Your task to perform on an android device: Go to accessibility settings Image 0: 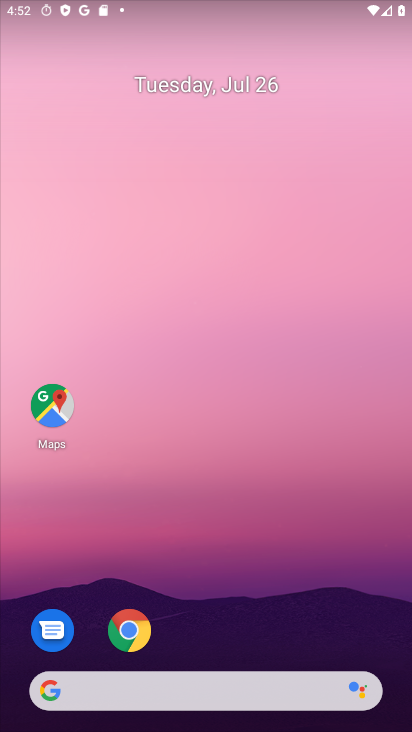
Step 0: drag from (295, 625) to (303, 40)
Your task to perform on an android device: Go to accessibility settings Image 1: 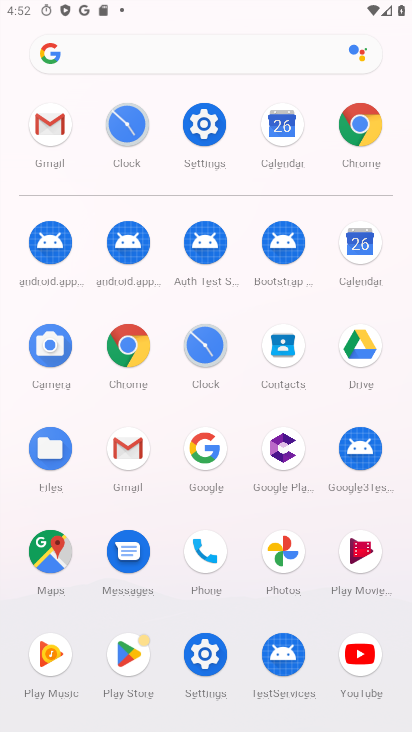
Step 1: click (210, 119)
Your task to perform on an android device: Go to accessibility settings Image 2: 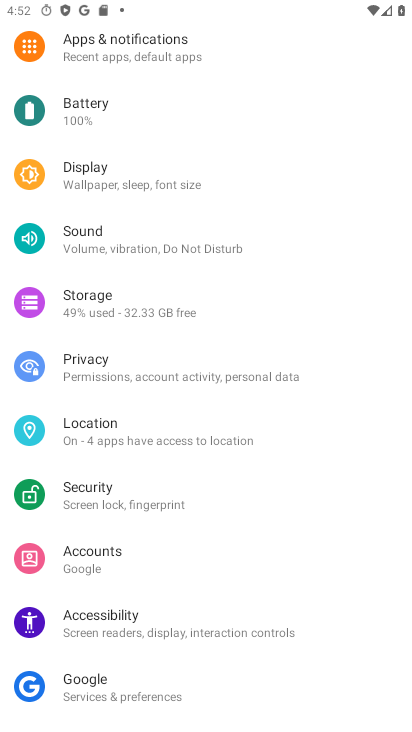
Step 2: click (142, 627)
Your task to perform on an android device: Go to accessibility settings Image 3: 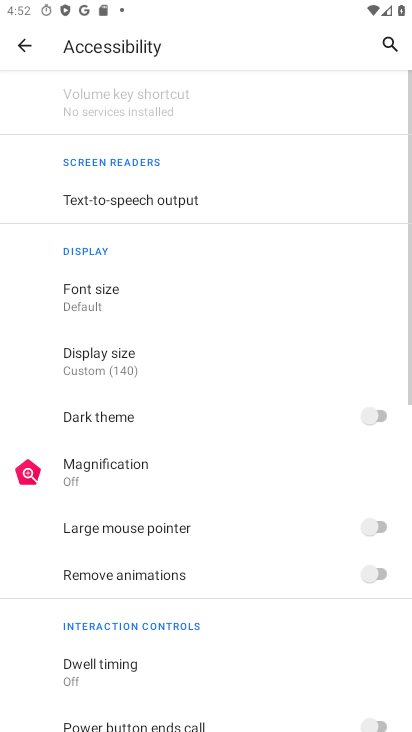
Step 3: task complete